Your task to perform on an android device: Go to network settings Image 0: 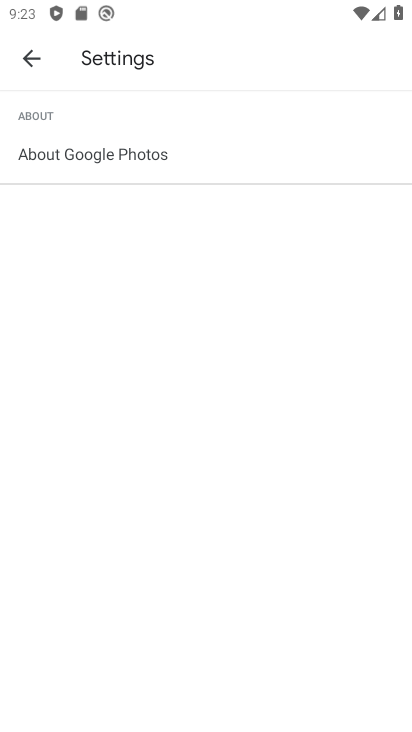
Step 0: press home button
Your task to perform on an android device: Go to network settings Image 1: 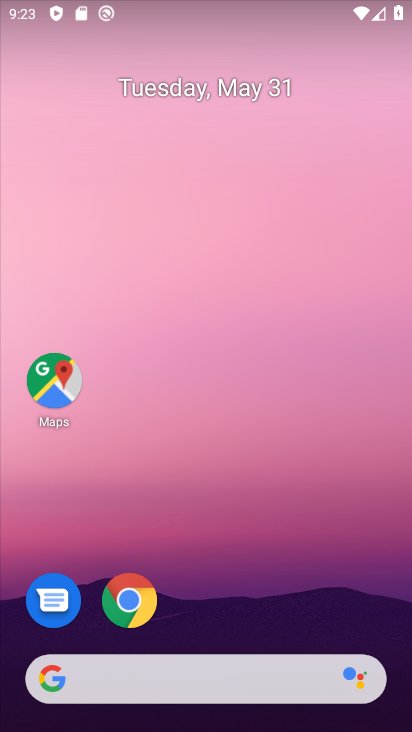
Step 1: drag from (199, 651) to (231, 261)
Your task to perform on an android device: Go to network settings Image 2: 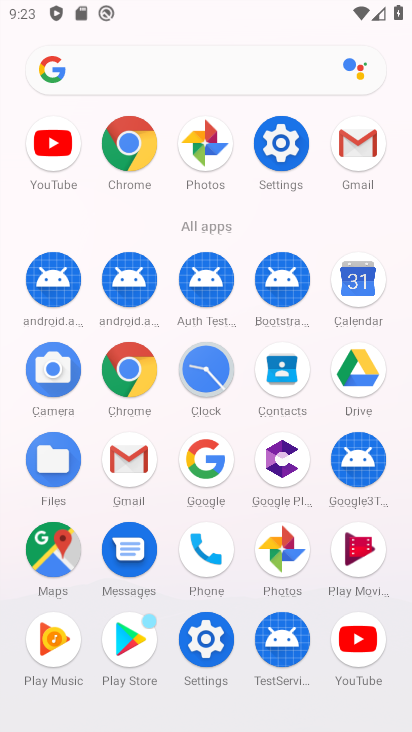
Step 2: click (283, 138)
Your task to perform on an android device: Go to network settings Image 3: 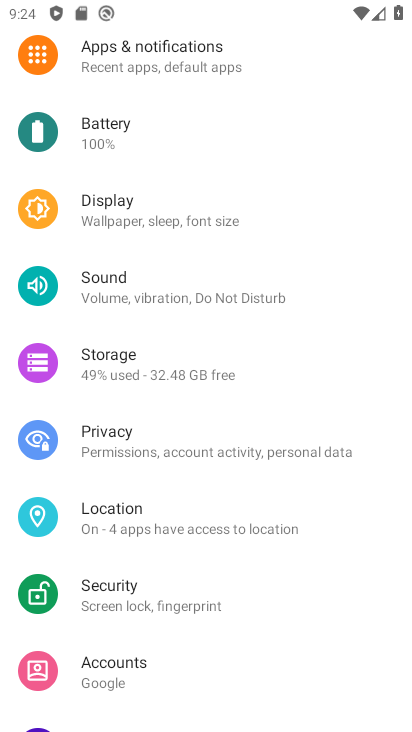
Step 3: drag from (195, 221) to (197, 527)
Your task to perform on an android device: Go to network settings Image 4: 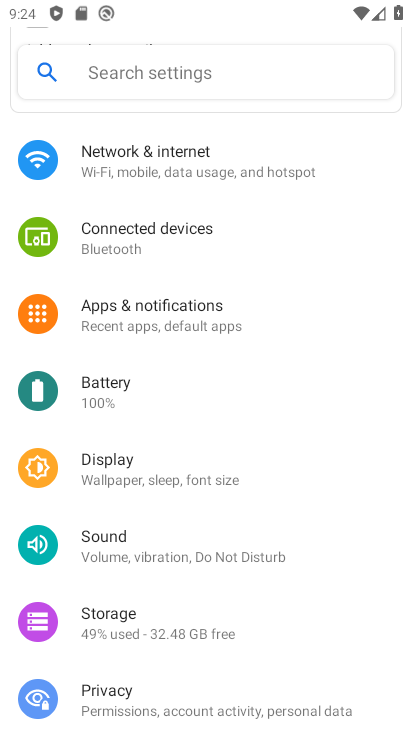
Step 4: click (139, 162)
Your task to perform on an android device: Go to network settings Image 5: 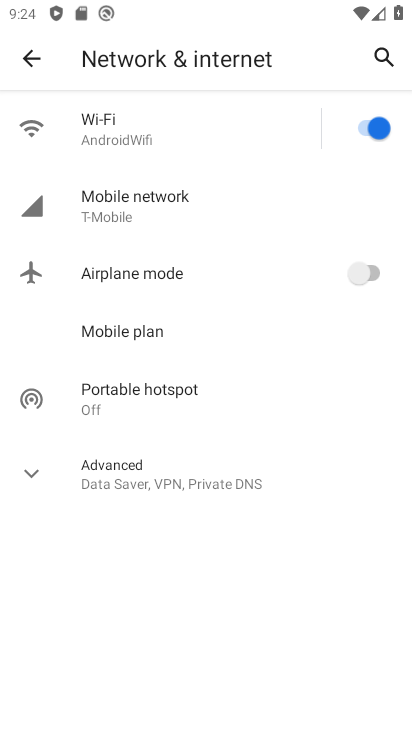
Step 5: task complete